Your task to perform on an android device: change your default location settings in chrome Image 0: 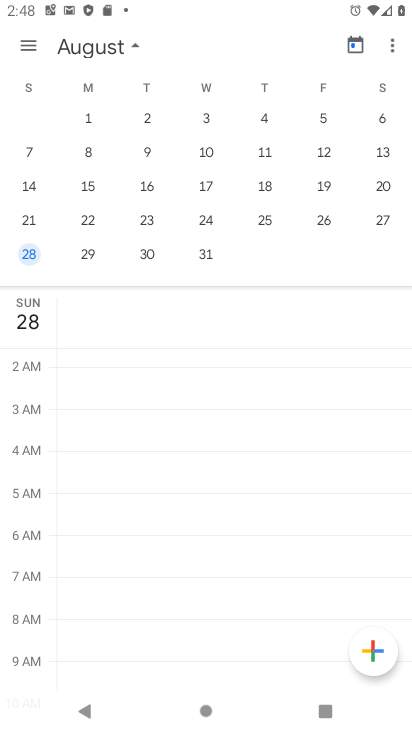
Step 0: press home button
Your task to perform on an android device: change your default location settings in chrome Image 1: 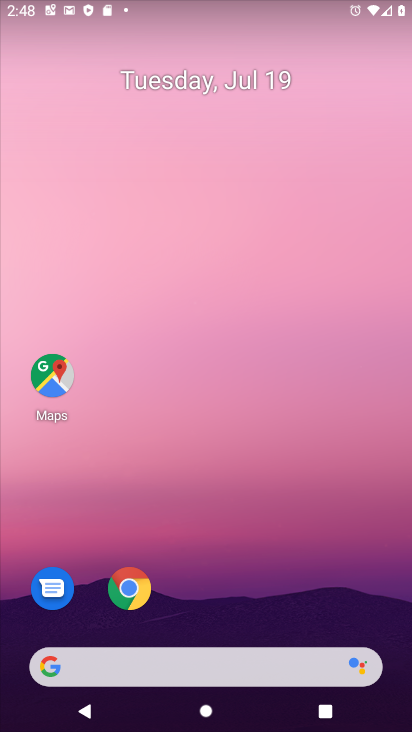
Step 1: drag from (405, 653) to (307, 62)
Your task to perform on an android device: change your default location settings in chrome Image 2: 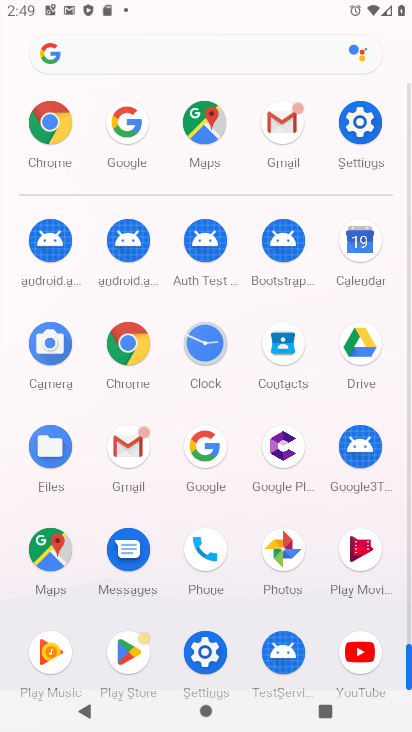
Step 2: click (119, 331)
Your task to perform on an android device: change your default location settings in chrome Image 3: 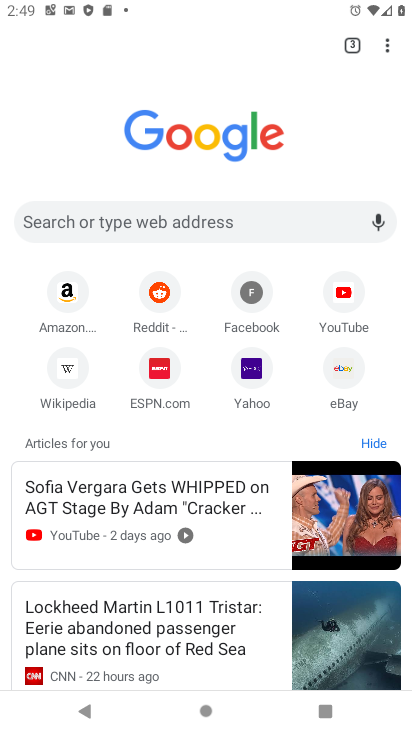
Step 3: click (386, 40)
Your task to perform on an android device: change your default location settings in chrome Image 4: 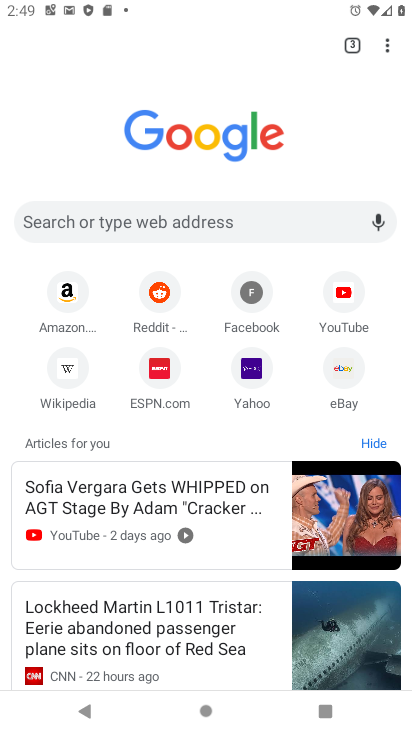
Step 4: click (383, 45)
Your task to perform on an android device: change your default location settings in chrome Image 5: 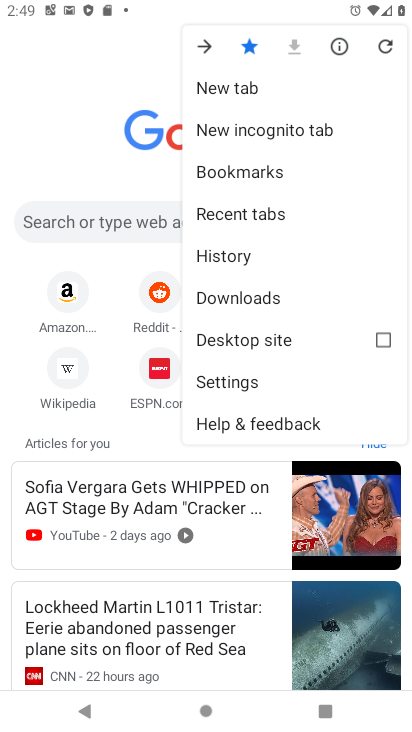
Step 5: click (252, 392)
Your task to perform on an android device: change your default location settings in chrome Image 6: 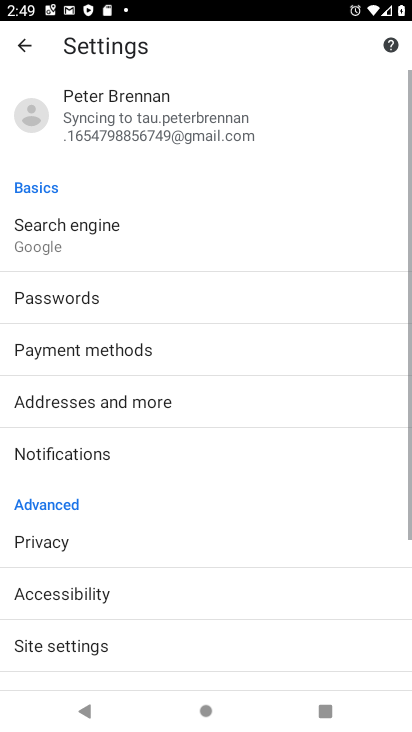
Step 6: click (67, 235)
Your task to perform on an android device: change your default location settings in chrome Image 7: 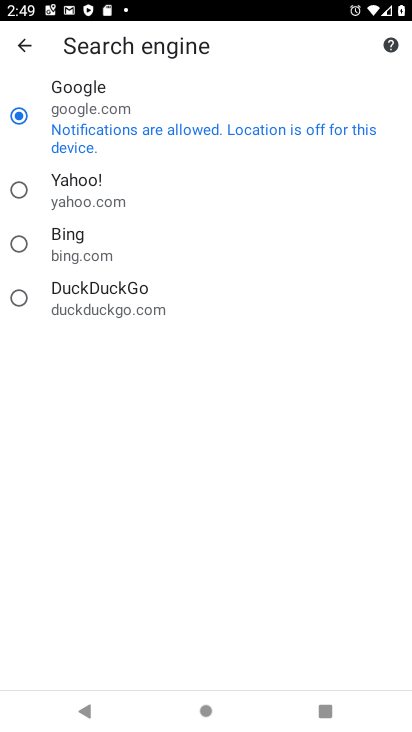
Step 7: click (100, 218)
Your task to perform on an android device: change your default location settings in chrome Image 8: 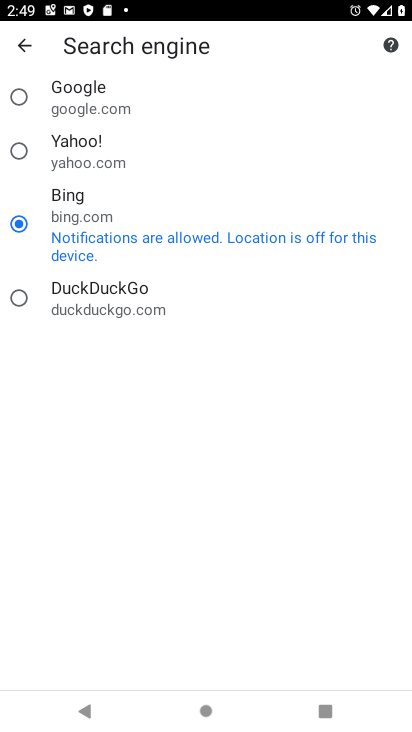
Step 8: task complete